Your task to perform on an android device: check data usage Image 0: 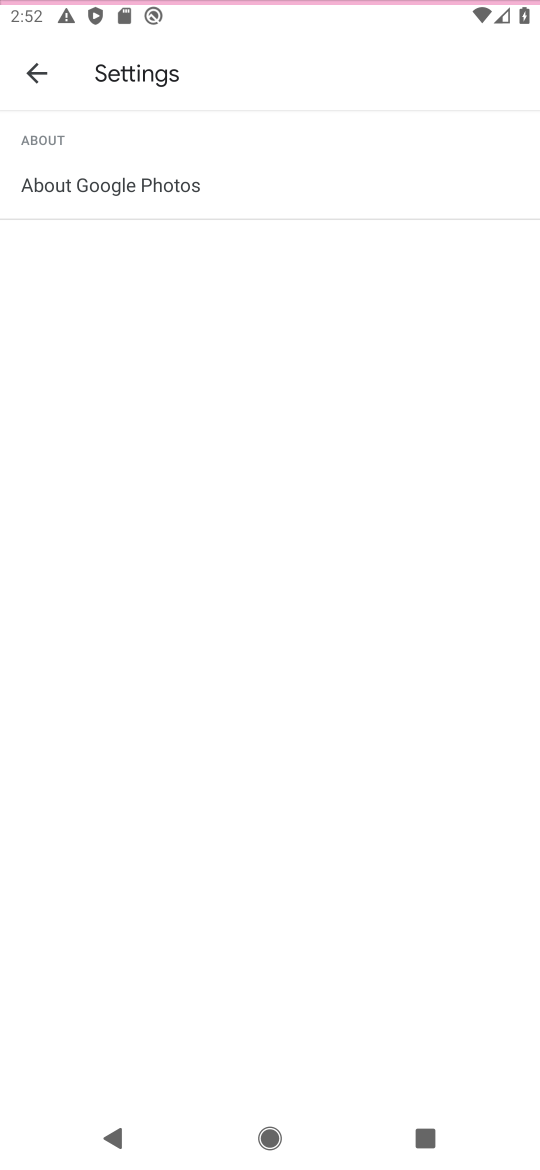
Step 0: press home button
Your task to perform on an android device: check data usage Image 1: 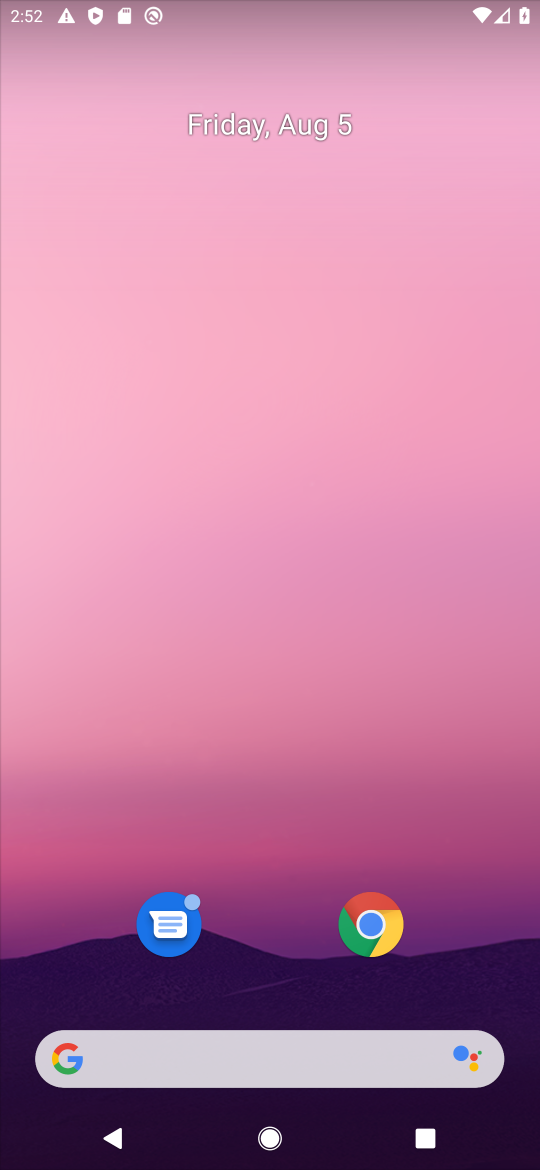
Step 1: drag from (266, 833) to (262, 183)
Your task to perform on an android device: check data usage Image 2: 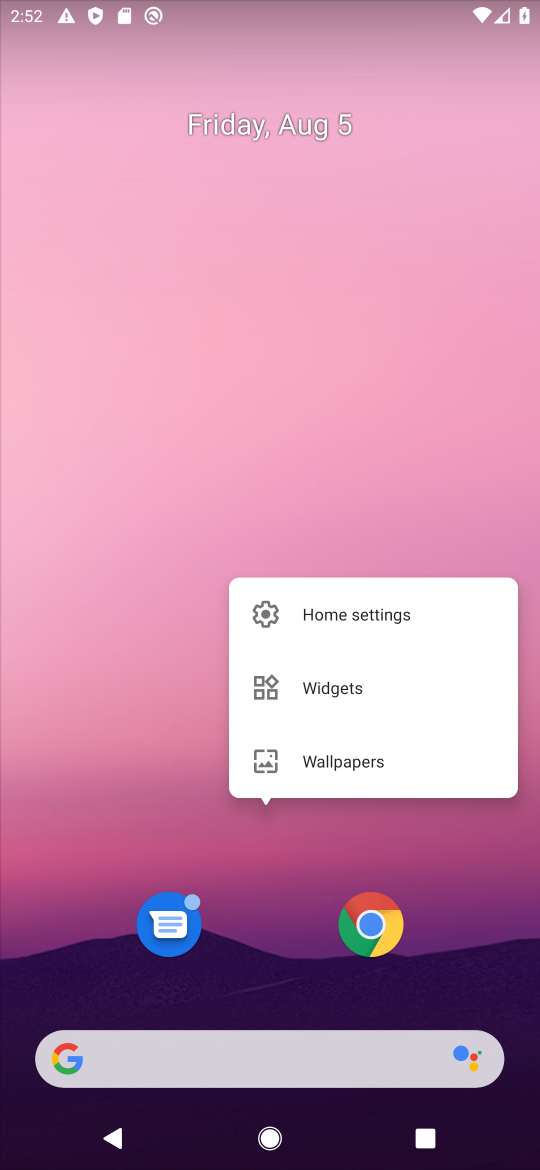
Step 2: click (288, 433)
Your task to perform on an android device: check data usage Image 3: 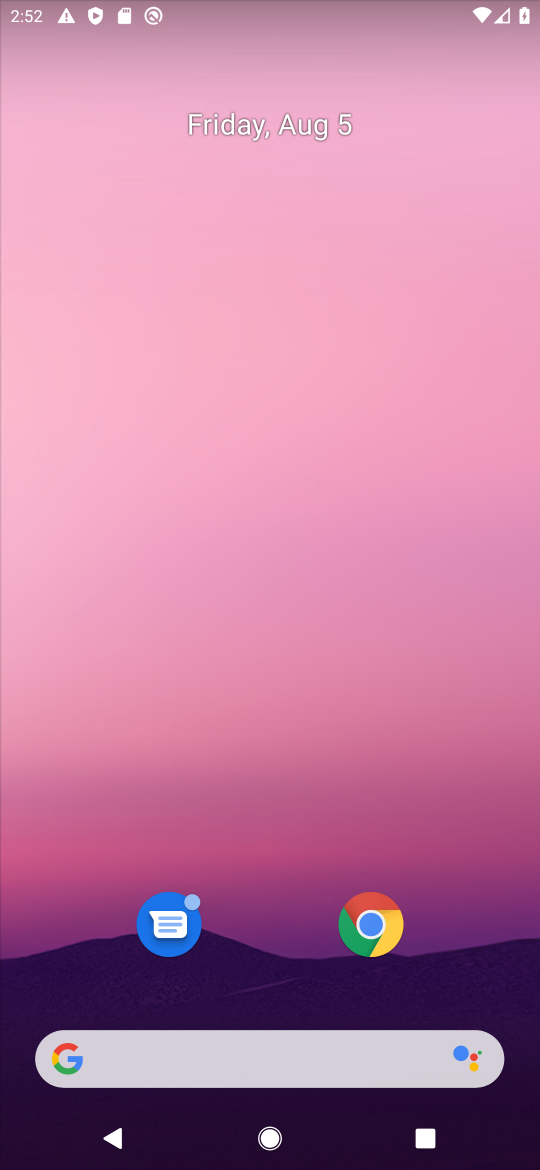
Step 3: drag from (288, 754) to (333, 149)
Your task to perform on an android device: check data usage Image 4: 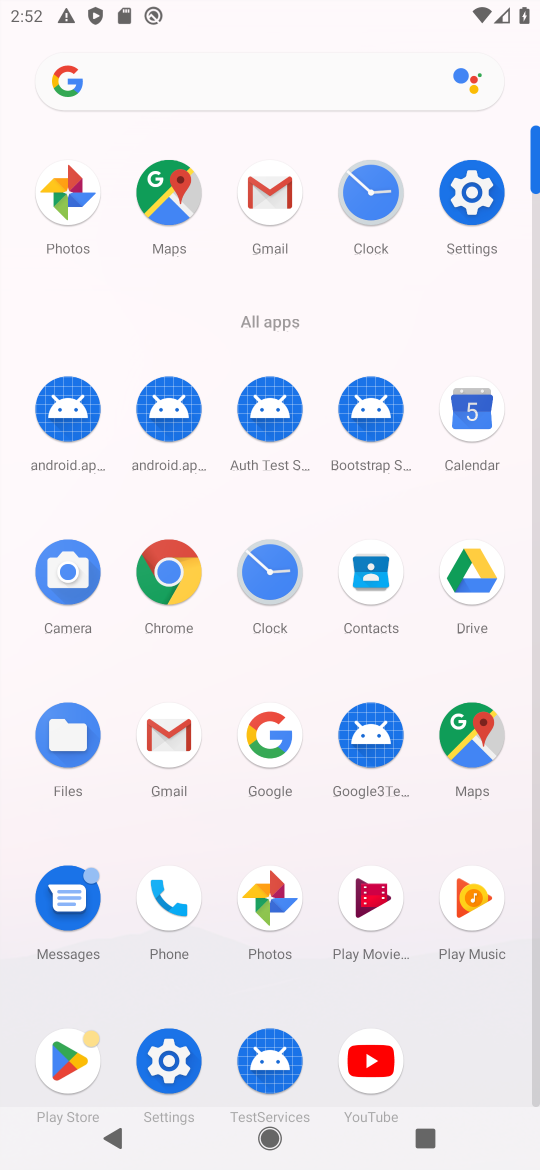
Step 4: click (161, 1049)
Your task to perform on an android device: check data usage Image 5: 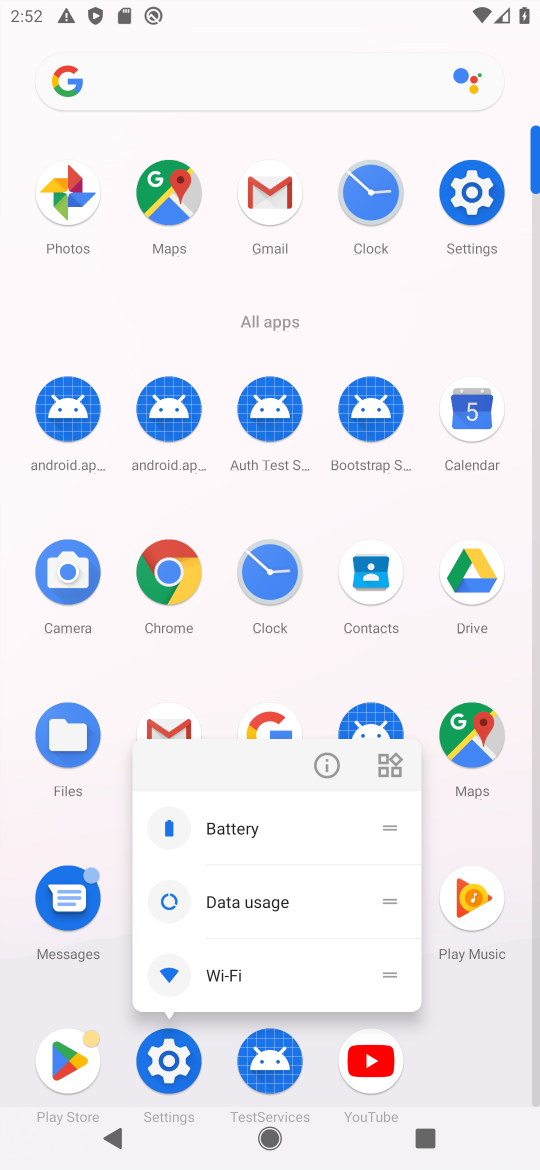
Step 5: click (171, 1068)
Your task to perform on an android device: check data usage Image 6: 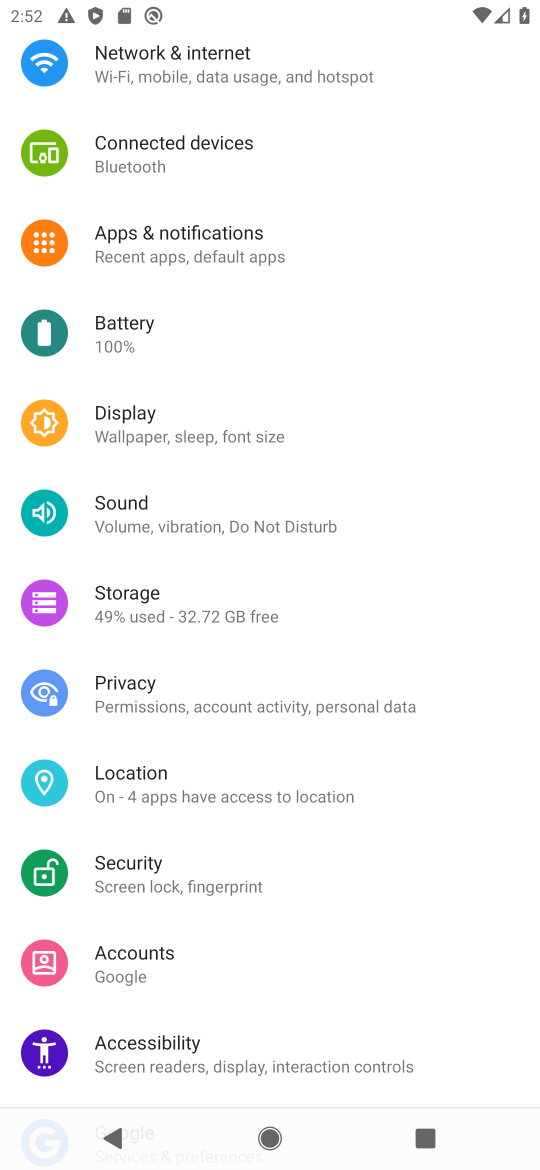
Step 6: drag from (292, 294) to (278, 774)
Your task to perform on an android device: check data usage Image 7: 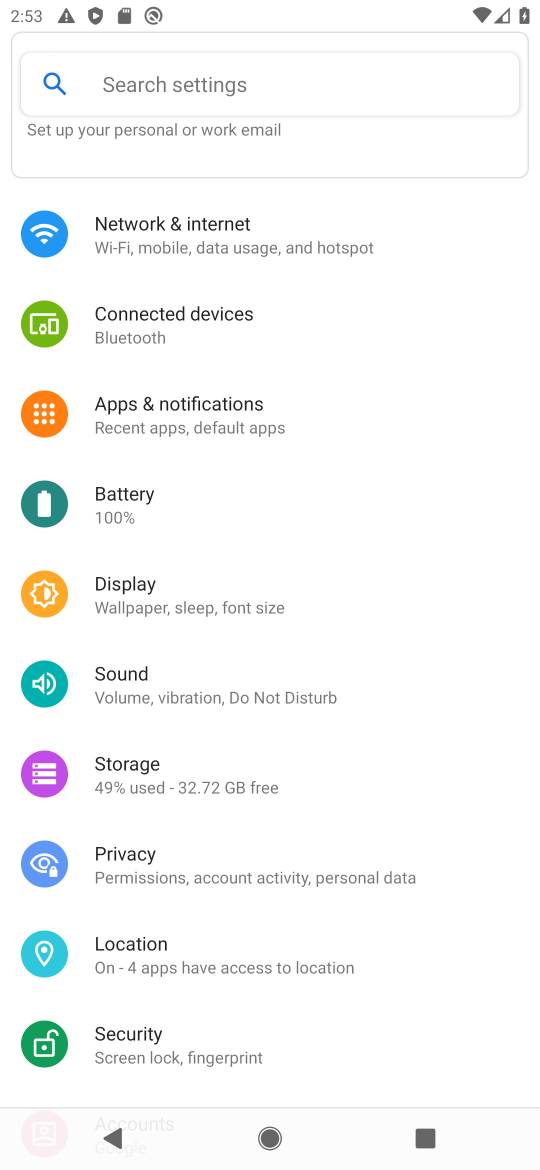
Step 7: click (229, 240)
Your task to perform on an android device: check data usage Image 8: 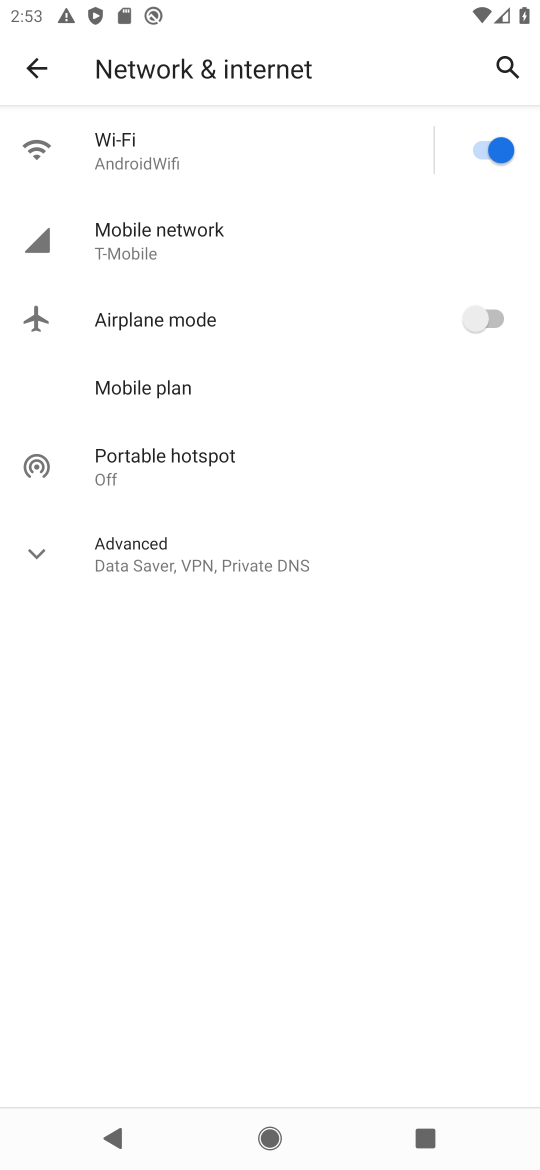
Step 8: click (158, 242)
Your task to perform on an android device: check data usage Image 9: 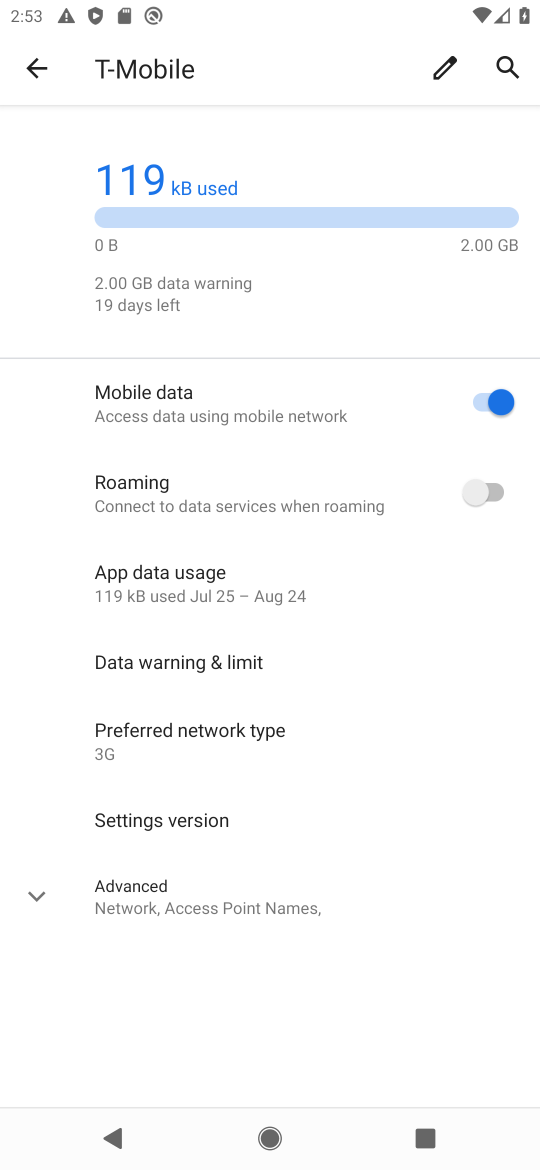
Step 9: task complete